Your task to perform on an android device: turn on priority inbox in the gmail app Image 0: 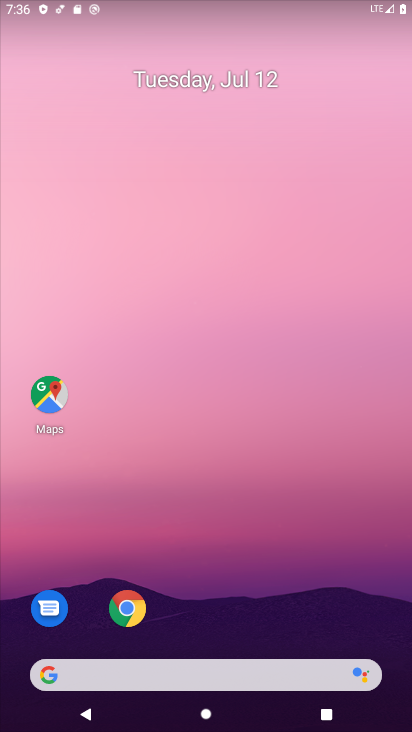
Step 0: drag from (229, 673) to (365, 283)
Your task to perform on an android device: turn on priority inbox in the gmail app Image 1: 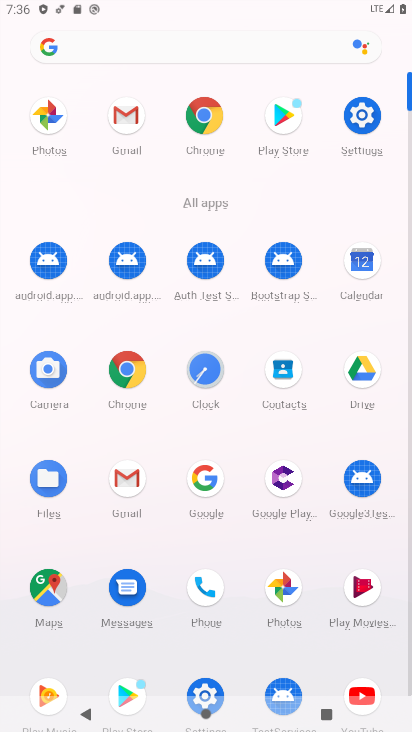
Step 1: click (134, 124)
Your task to perform on an android device: turn on priority inbox in the gmail app Image 2: 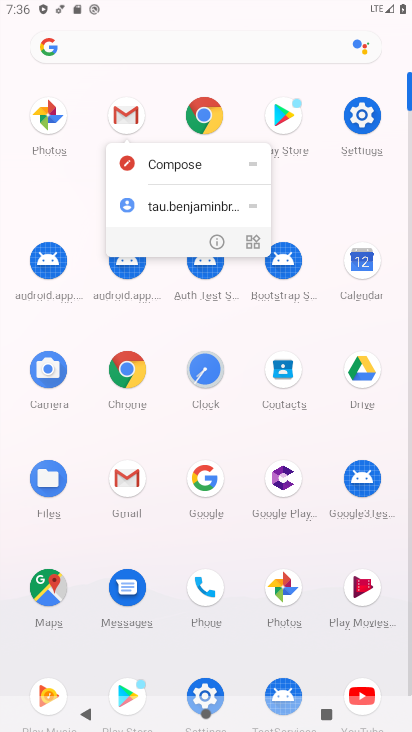
Step 2: click (123, 115)
Your task to perform on an android device: turn on priority inbox in the gmail app Image 3: 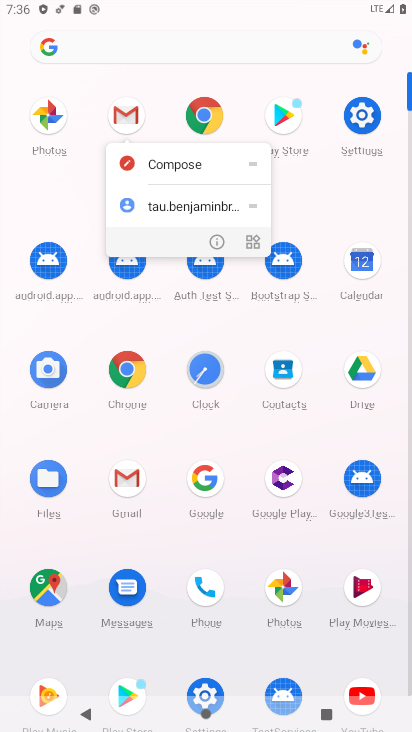
Step 3: click (128, 123)
Your task to perform on an android device: turn on priority inbox in the gmail app Image 4: 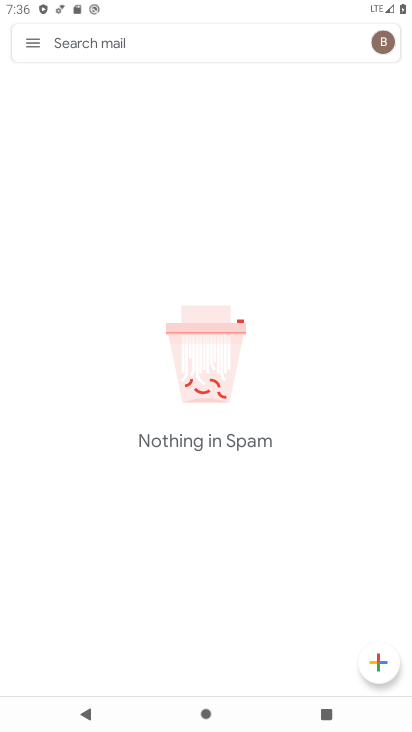
Step 4: click (35, 47)
Your task to perform on an android device: turn on priority inbox in the gmail app Image 5: 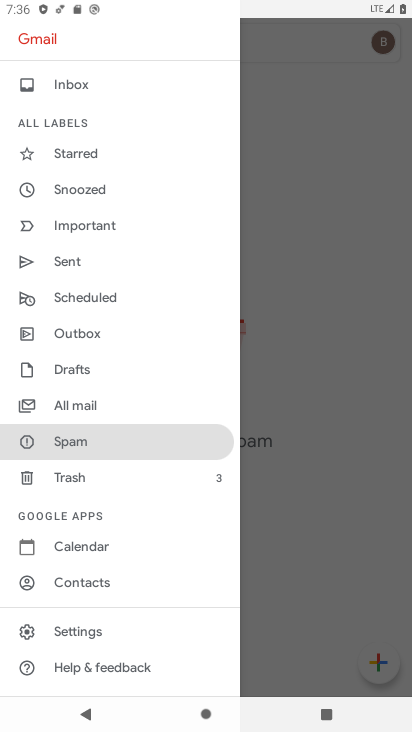
Step 5: click (88, 633)
Your task to perform on an android device: turn on priority inbox in the gmail app Image 6: 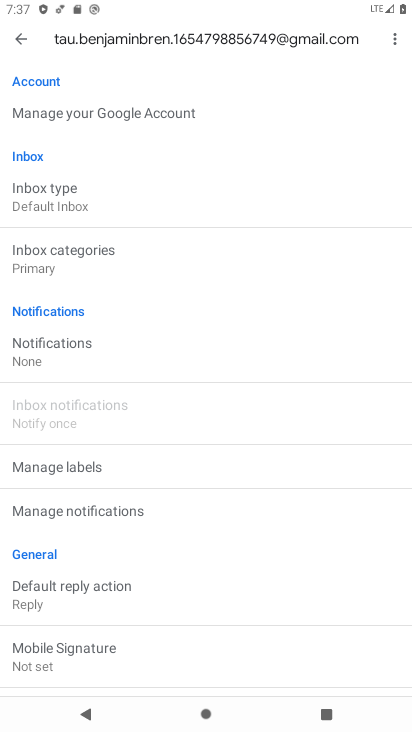
Step 6: click (32, 197)
Your task to perform on an android device: turn on priority inbox in the gmail app Image 7: 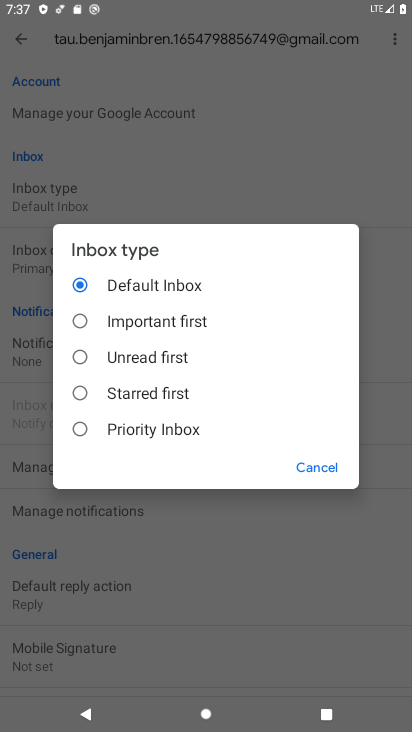
Step 7: click (87, 436)
Your task to perform on an android device: turn on priority inbox in the gmail app Image 8: 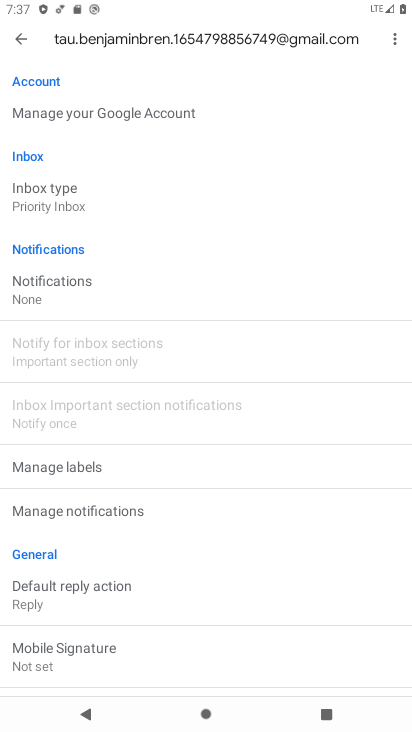
Step 8: task complete